Your task to perform on an android device: read, delete, or share a saved page in the chrome app Image 0: 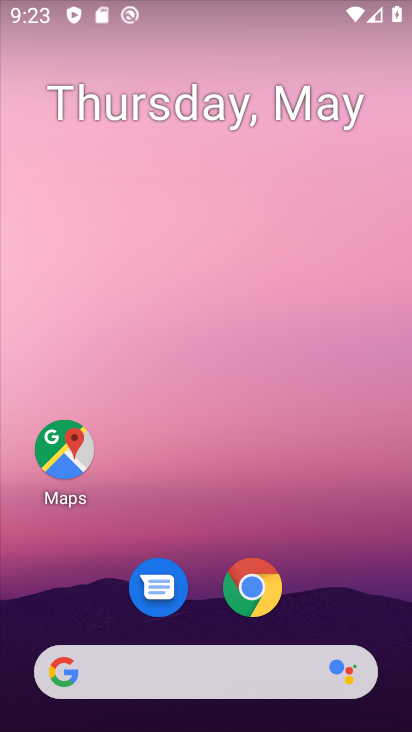
Step 0: click (254, 599)
Your task to perform on an android device: read, delete, or share a saved page in the chrome app Image 1: 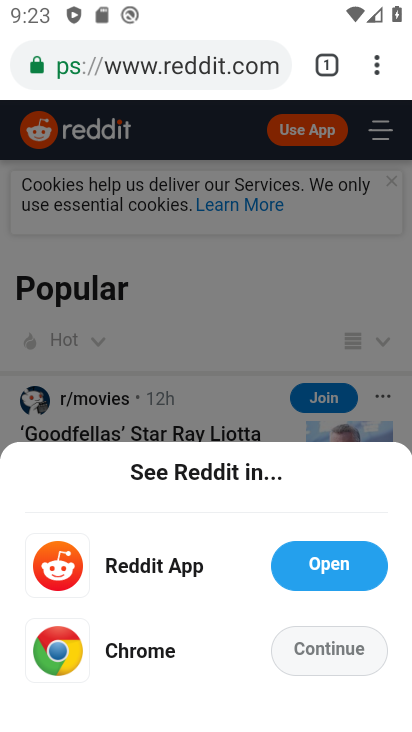
Step 1: click (377, 61)
Your task to perform on an android device: read, delete, or share a saved page in the chrome app Image 2: 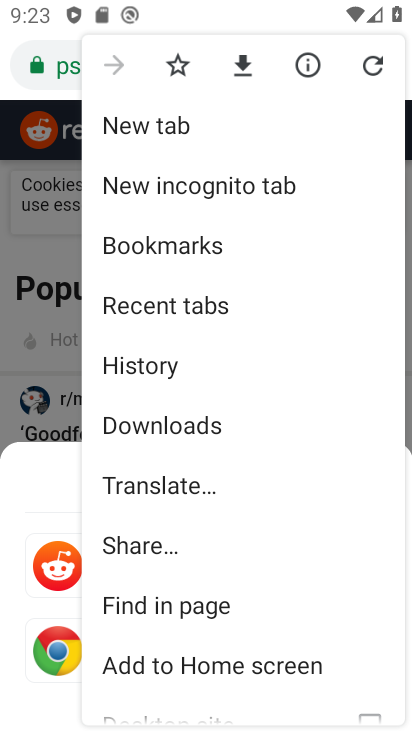
Step 2: drag from (252, 583) to (229, 187)
Your task to perform on an android device: read, delete, or share a saved page in the chrome app Image 3: 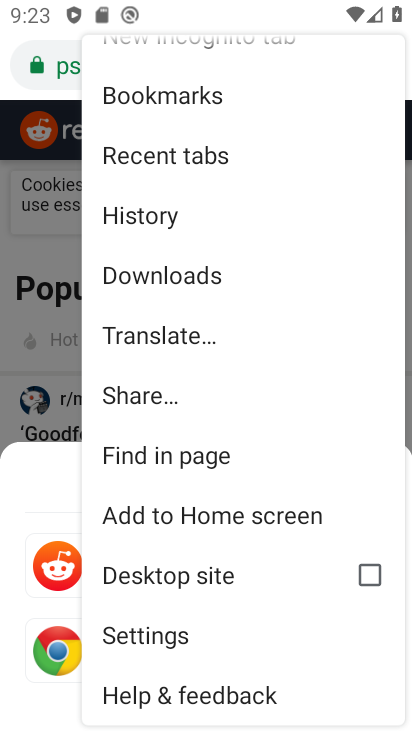
Step 3: click (174, 276)
Your task to perform on an android device: read, delete, or share a saved page in the chrome app Image 4: 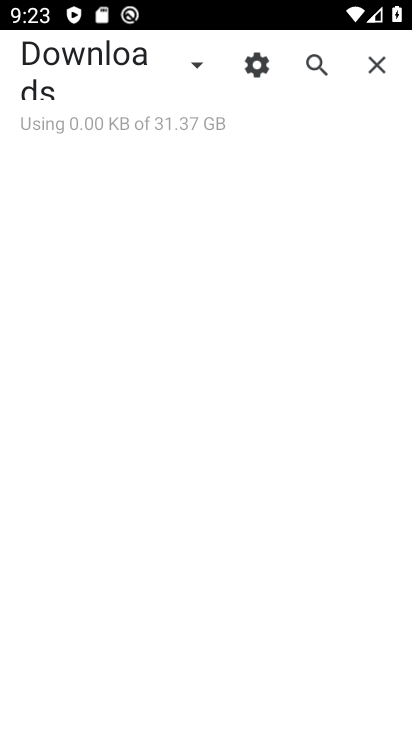
Step 4: click (194, 65)
Your task to perform on an android device: read, delete, or share a saved page in the chrome app Image 5: 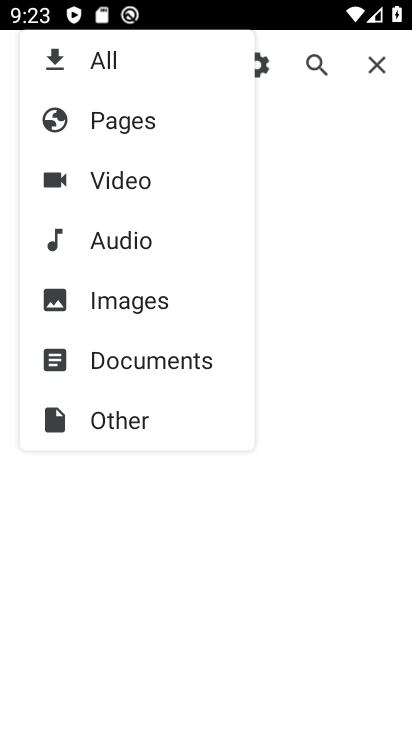
Step 5: click (102, 127)
Your task to perform on an android device: read, delete, or share a saved page in the chrome app Image 6: 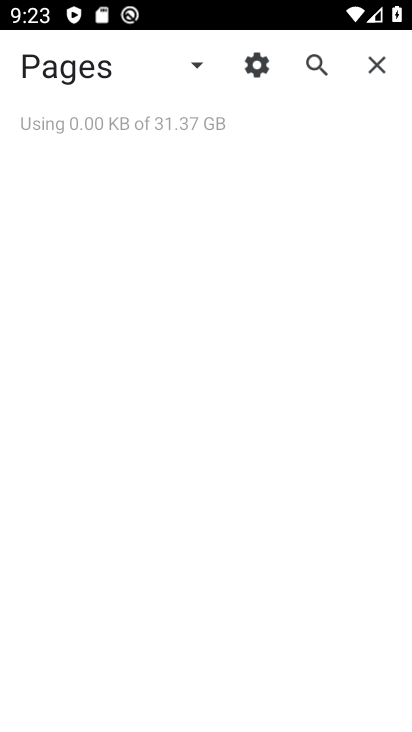
Step 6: task complete